Your task to perform on an android device: Turn off the flashlight Image 0: 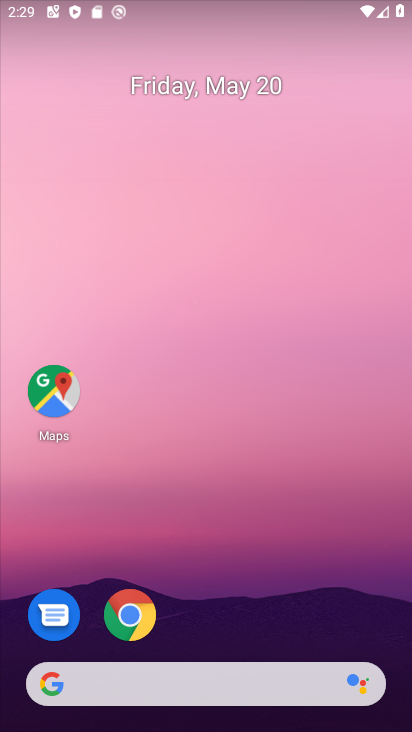
Step 0: drag from (267, 608) to (287, 199)
Your task to perform on an android device: Turn off the flashlight Image 1: 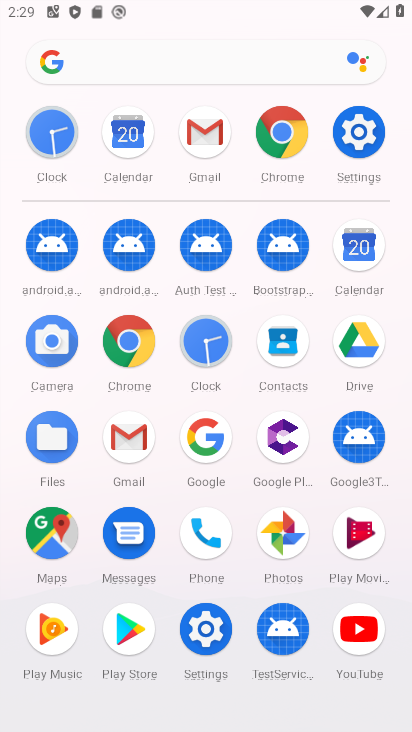
Step 1: click (345, 122)
Your task to perform on an android device: Turn off the flashlight Image 2: 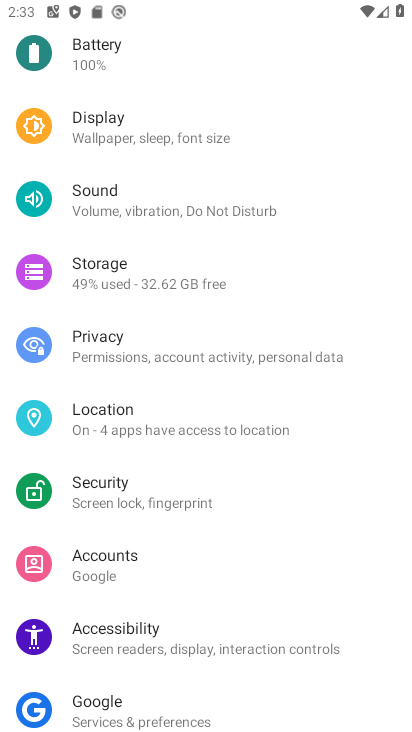
Step 2: task complete